Your task to perform on an android device: turn on location history Image 0: 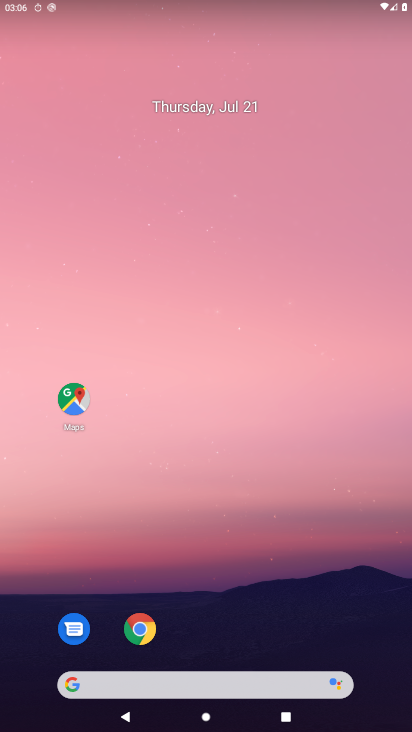
Step 0: drag from (39, 648) to (153, 63)
Your task to perform on an android device: turn on location history Image 1: 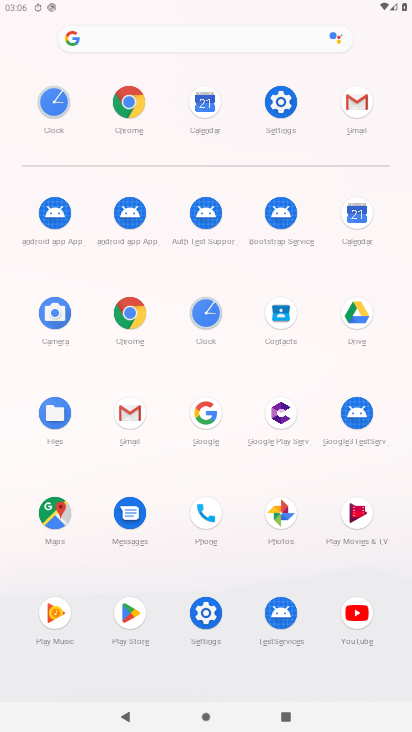
Step 1: click (202, 607)
Your task to perform on an android device: turn on location history Image 2: 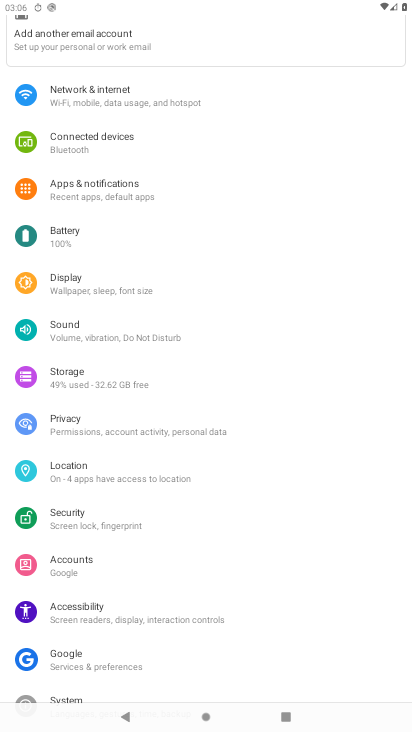
Step 2: click (88, 477)
Your task to perform on an android device: turn on location history Image 3: 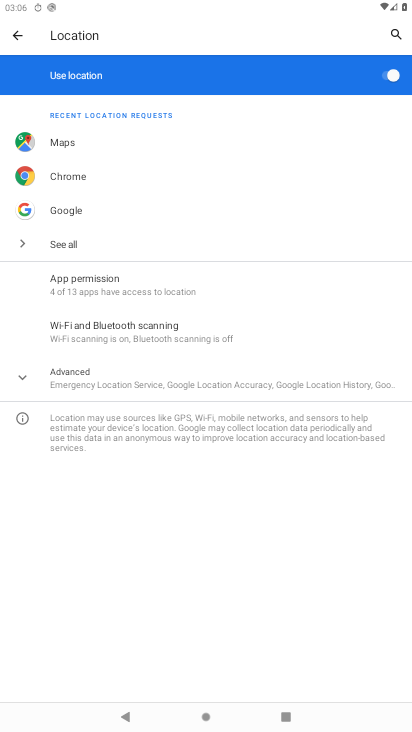
Step 3: click (91, 376)
Your task to perform on an android device: turn on location history Image 4: 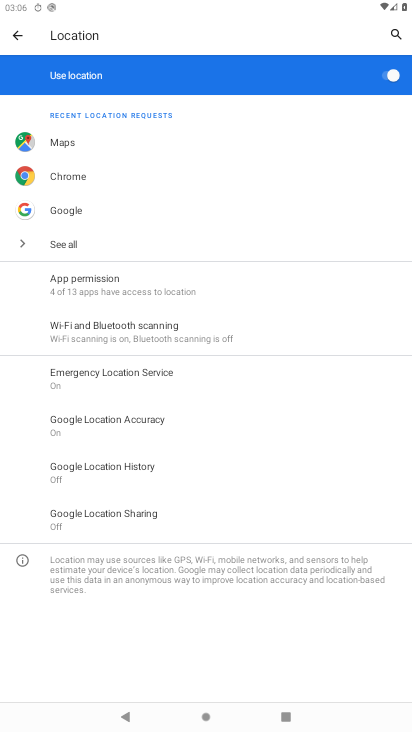
Step 4: click (91, 483)
Your task to perform on an android device: turn on location history Image 5: 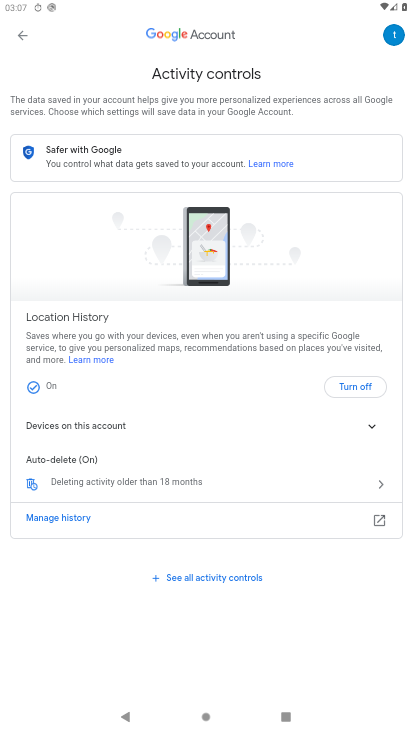
Step 5: click (352, 385)
Your task to perform on an android device: turn on location history Image 6: 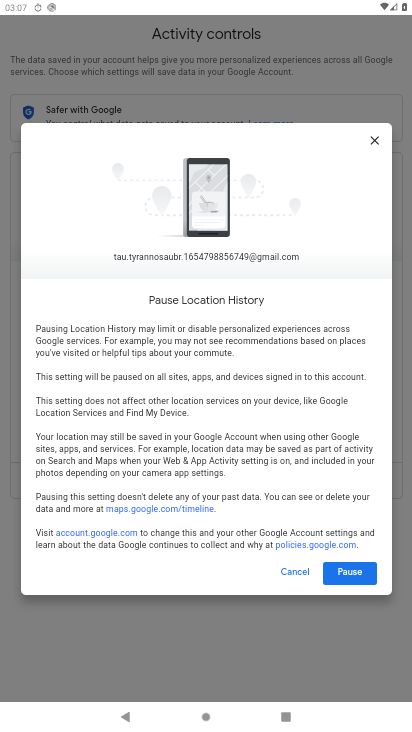
Step 6: click (347, 571)
Your task to perform on an android device: turn on location history Image 7: 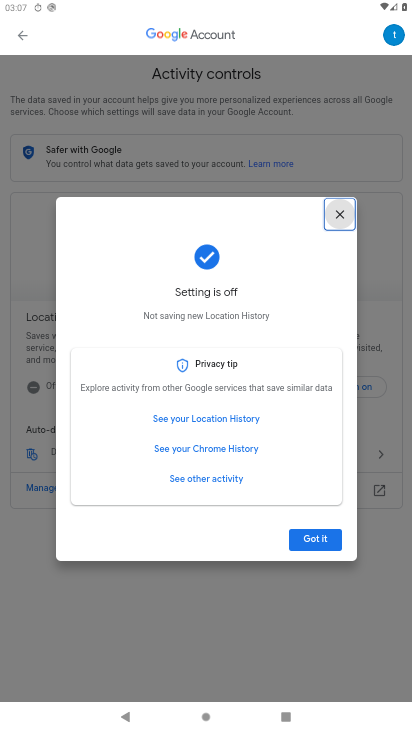
Step 7: click (130, 522)
Your task to perform on an android device: turn on location history Image 8: 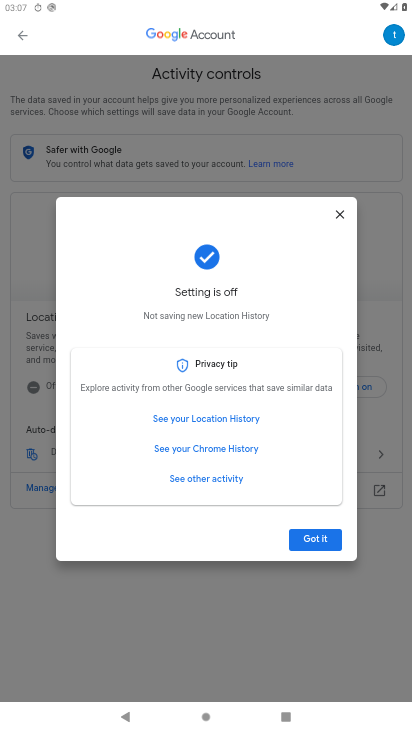
Step 8: click (306, 542)
Your task to perform on an android device: turn on location history Image 9: 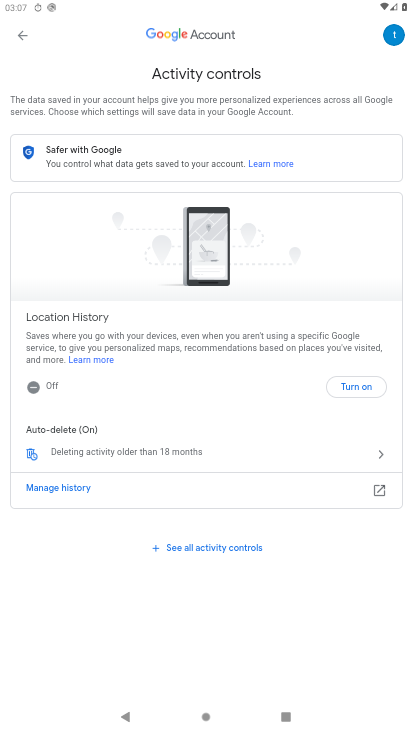
Step 9: task complete